Your task to perform on an android device: empty trash in google photos Image 0: 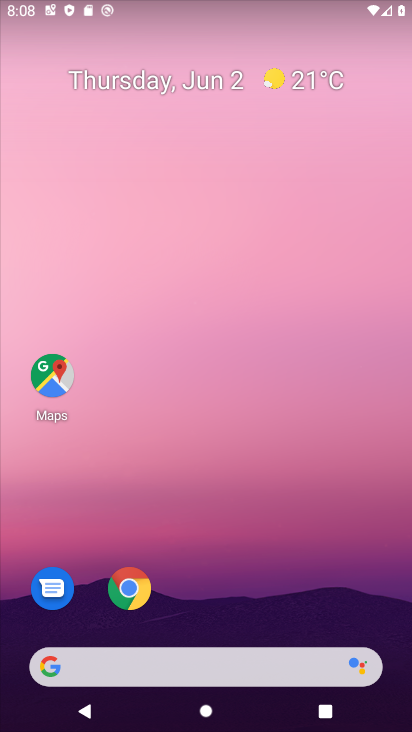
Step 0: drag from (206, 655) to (170, 38)
Your task to perform on an android device: empty trash in google photos Image 1: 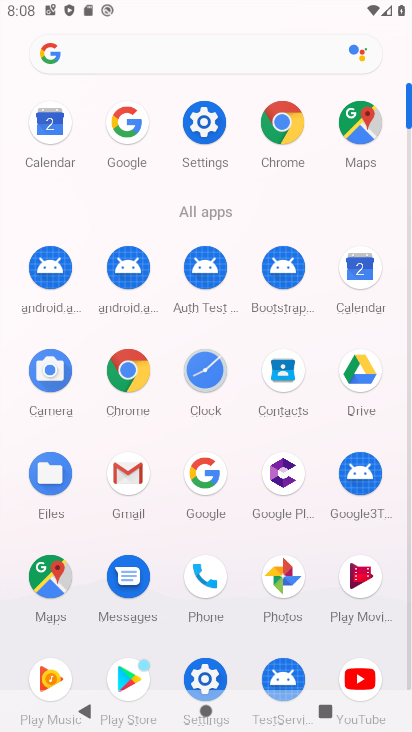
Step 1: click (286, 560)
Your task to perform on an android device: empty trash in google photos Image 2: 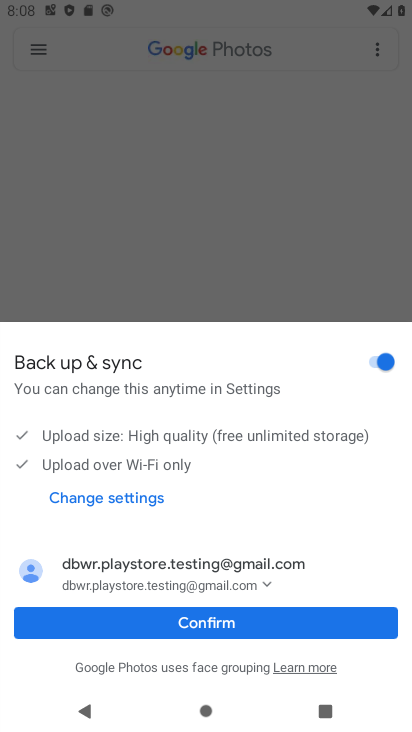
Step 2: click (285, 629)
Your task to perform on an android device: empty trash in google photos Image 3: 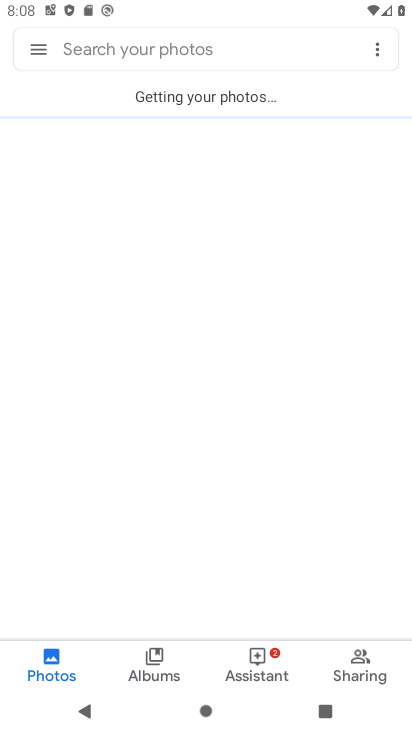
Step 3: click (45, 59)
Your task to perform on an android device: empty trash in google photos Image 4: 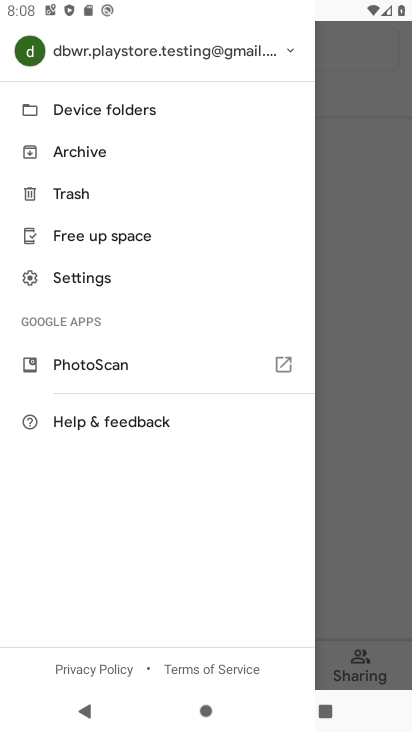
Step 4: click (81, 199)
Your task to perform on an android device: empty trash in google photos Image 5: 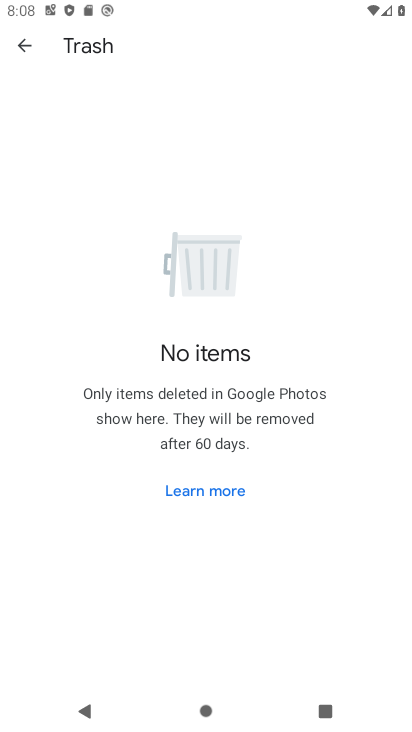
Step 5: task complete